Your task to perform on an android device: Open calendar and show me the first week of next month Image 0: 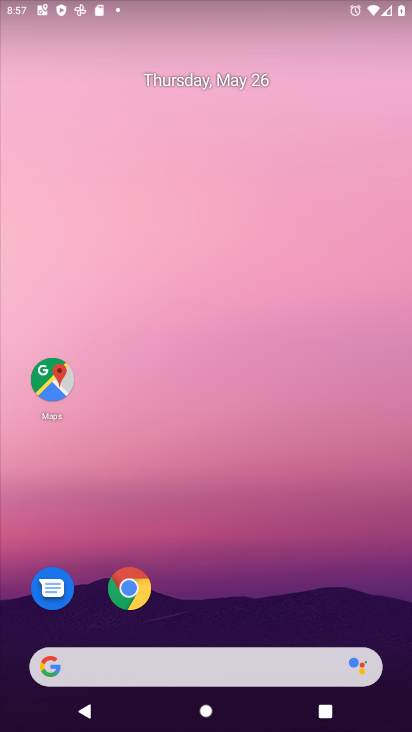
Step 0: drag from (383, 613) to (262, 72)
Your task to perform on an android device: Open calendar and show me the first week of next month Image 1: 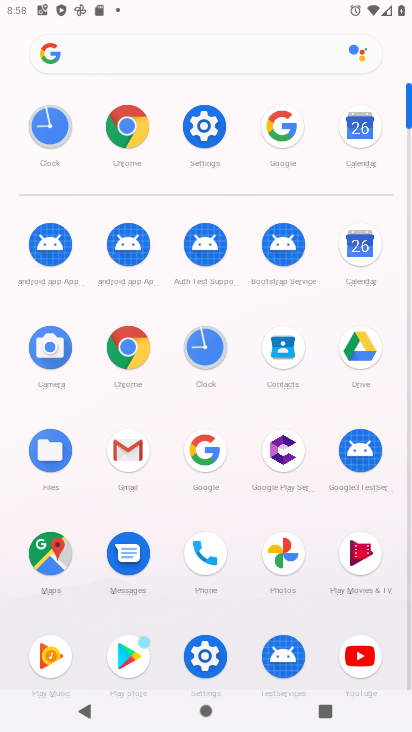
Step 1: click (348, 243)
Your task to perform on an android device: Open calendar and show me the first week of next month Image 2: 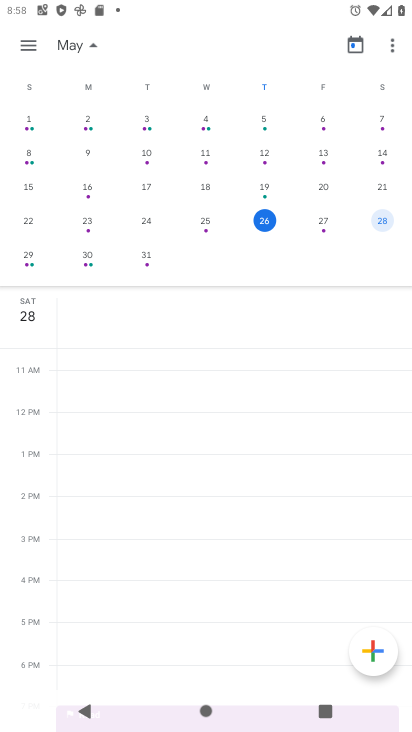
Step 2: drag from (396, 153) to (42, 186)
Your task to perform on an android device: Open calendar and show me the first week of next month Image 3: 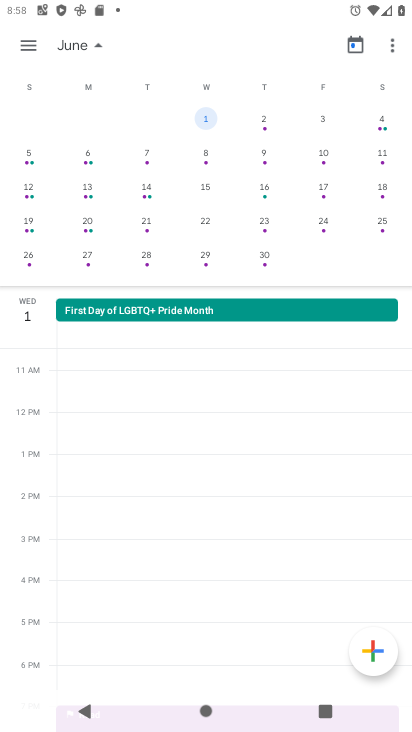
Step 3: click (28, 157)
Your task to perform on an android device: Open calendar and show me the first week of next month Image 4: 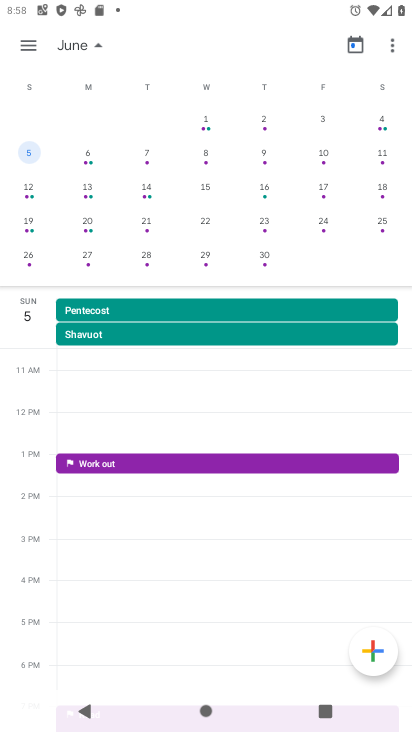
Step 4: task complete